Your task to perform on an android device: check android version Image 0: 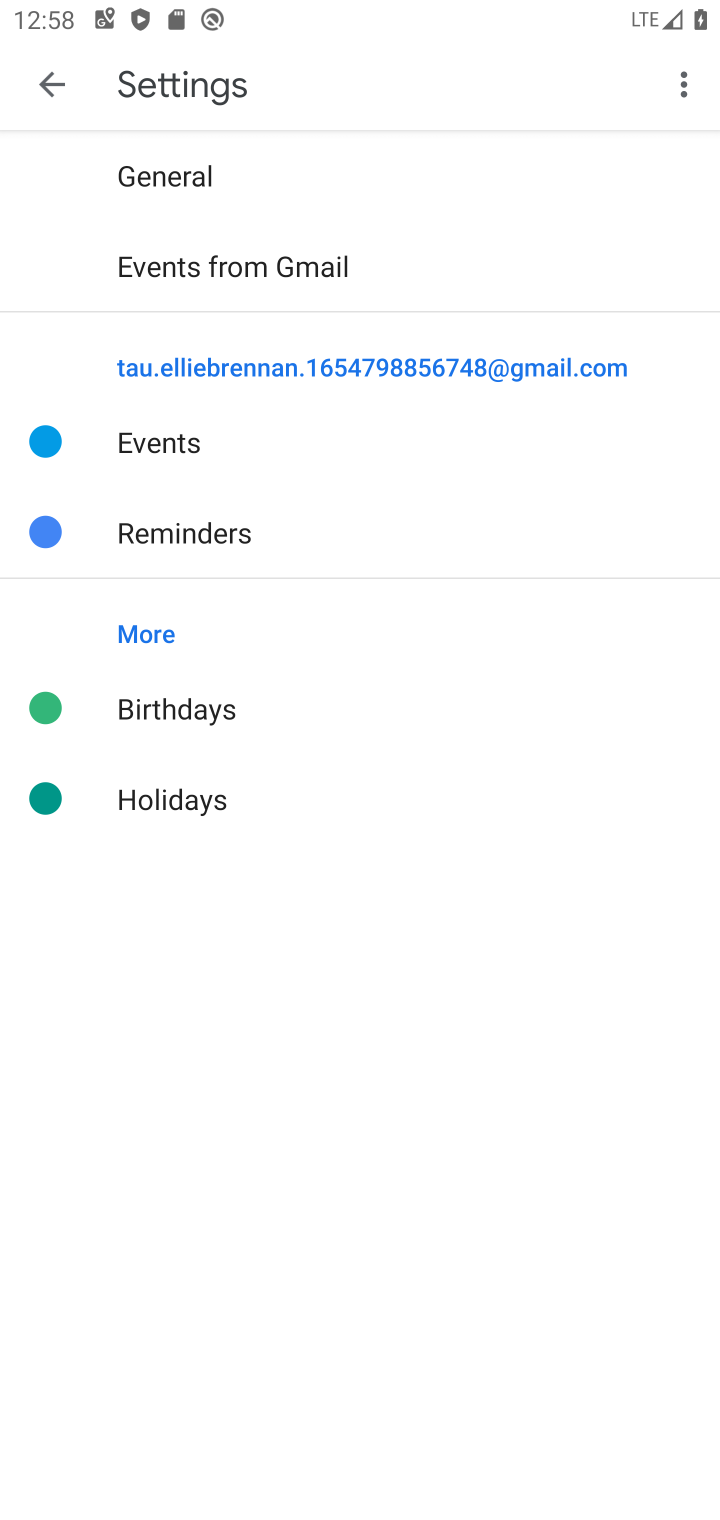
Step 0: press back button
Your task to perform on an android device: check android version Image 1: 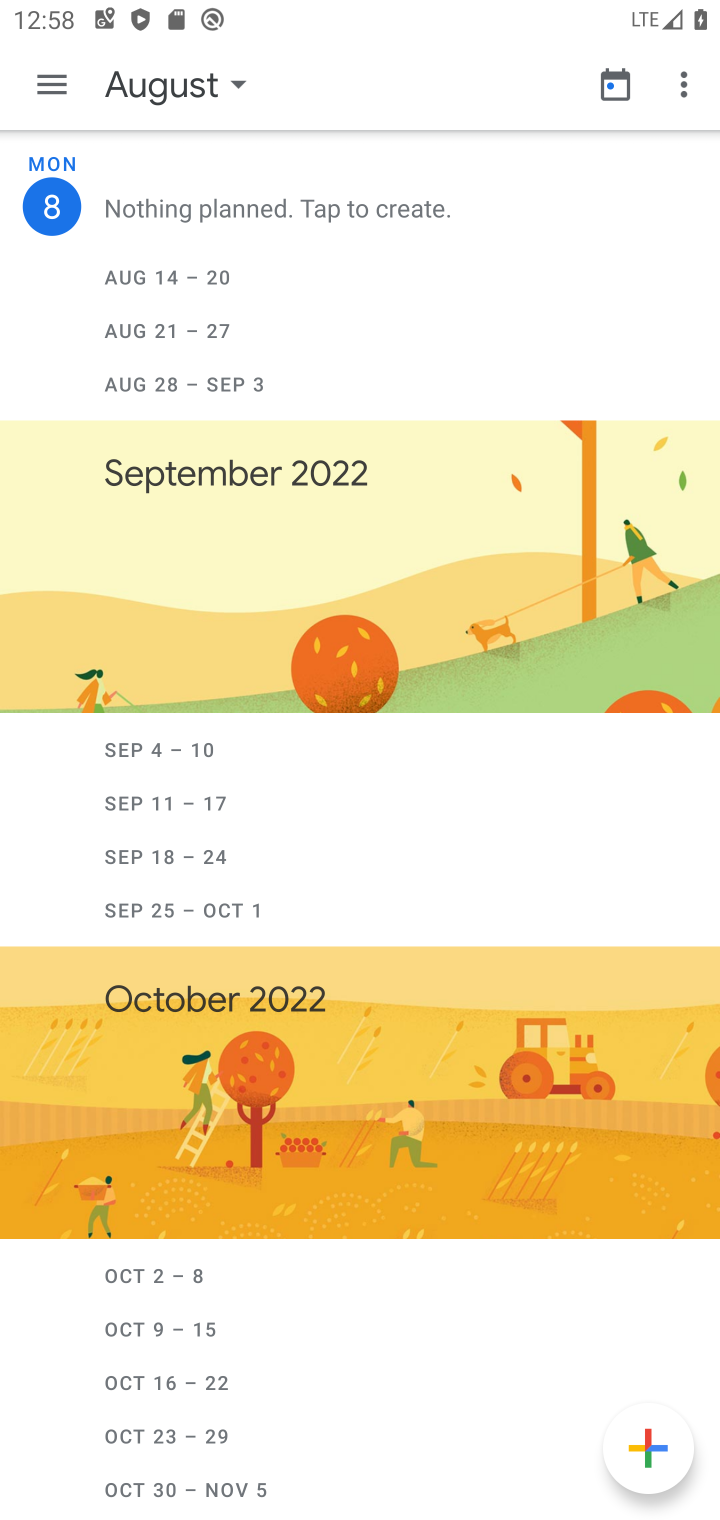
Step 1: press back button
Your task to perform on an android device: check android version Image 2: 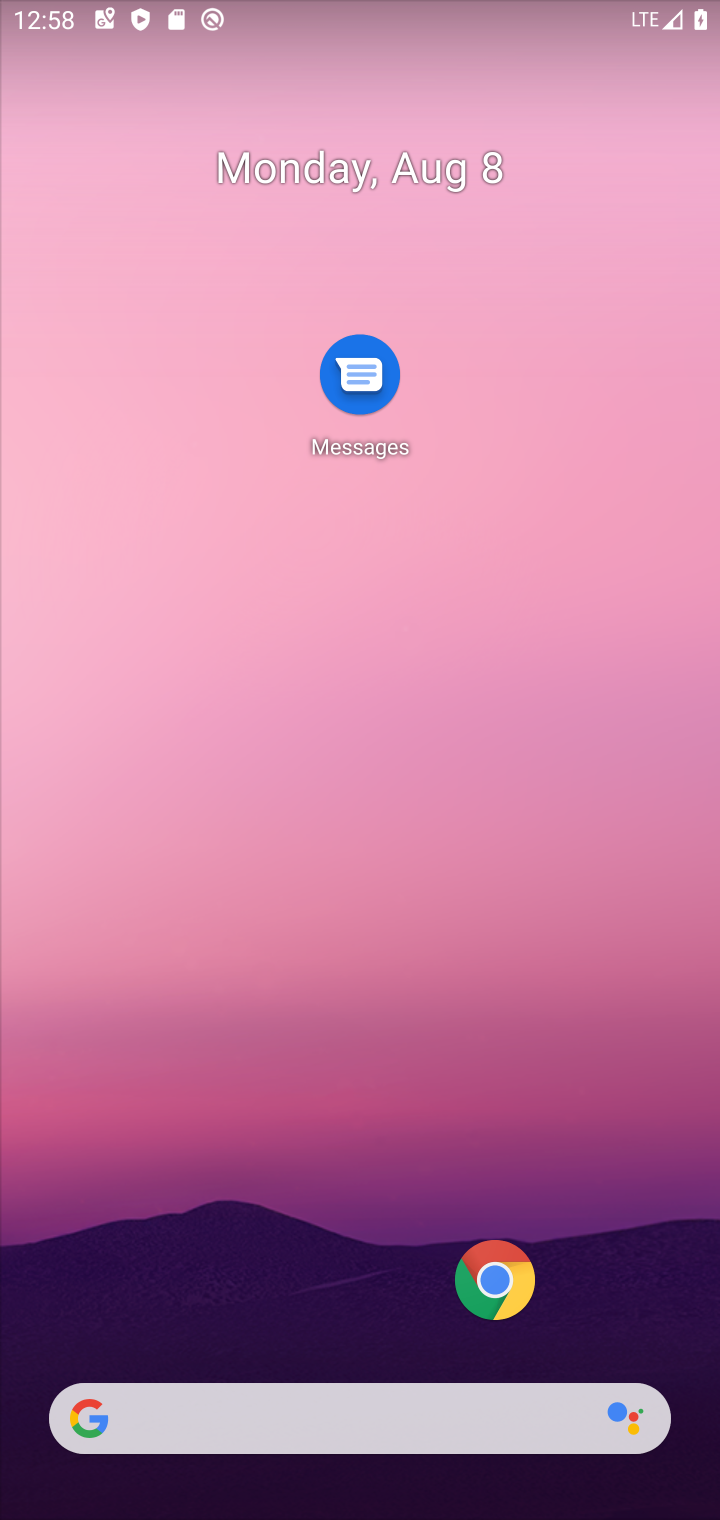
Step 2: drag from (300, 1209) to (459, 119)
Your task to perform on an android device: check android version Image 3: 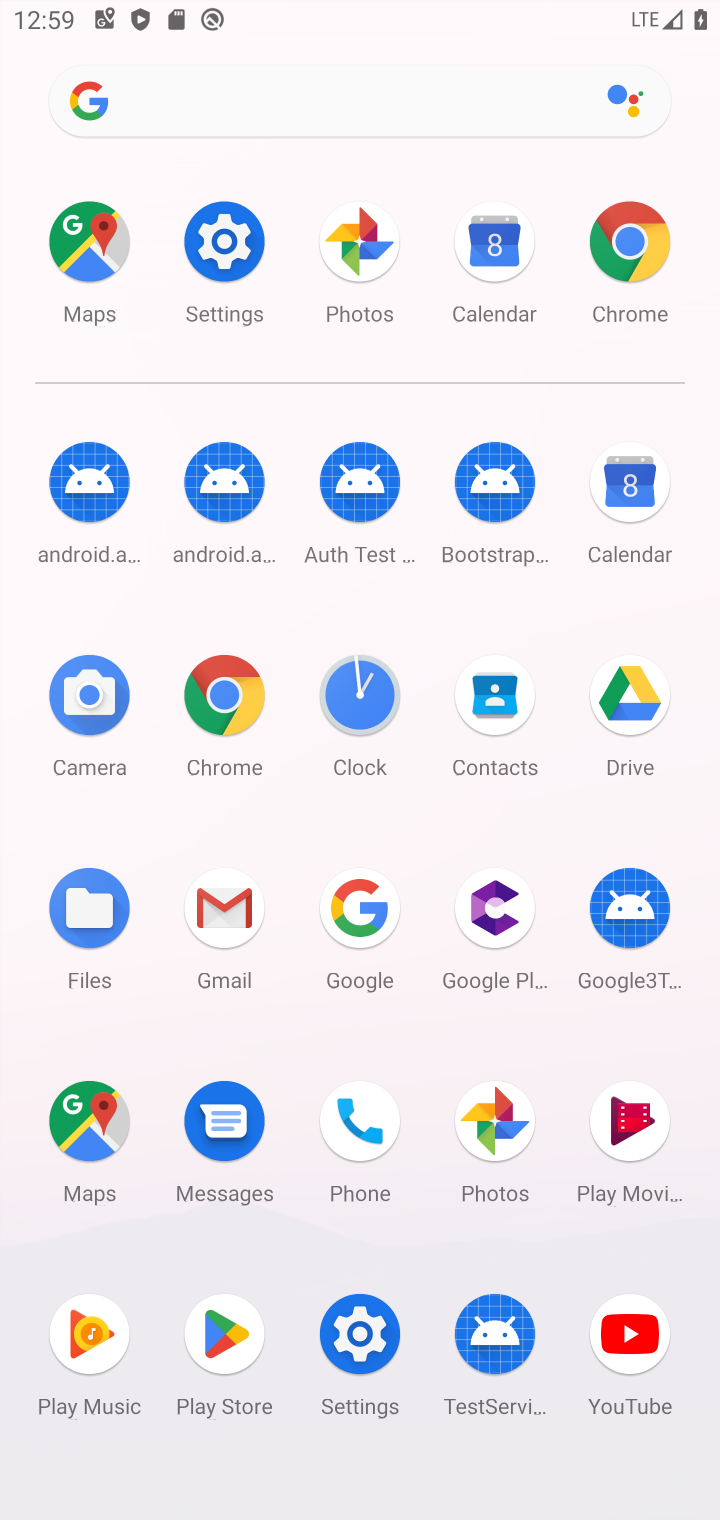
Step 3: click (217, 252)
Your task to perform on an android device: check android version Image 4: 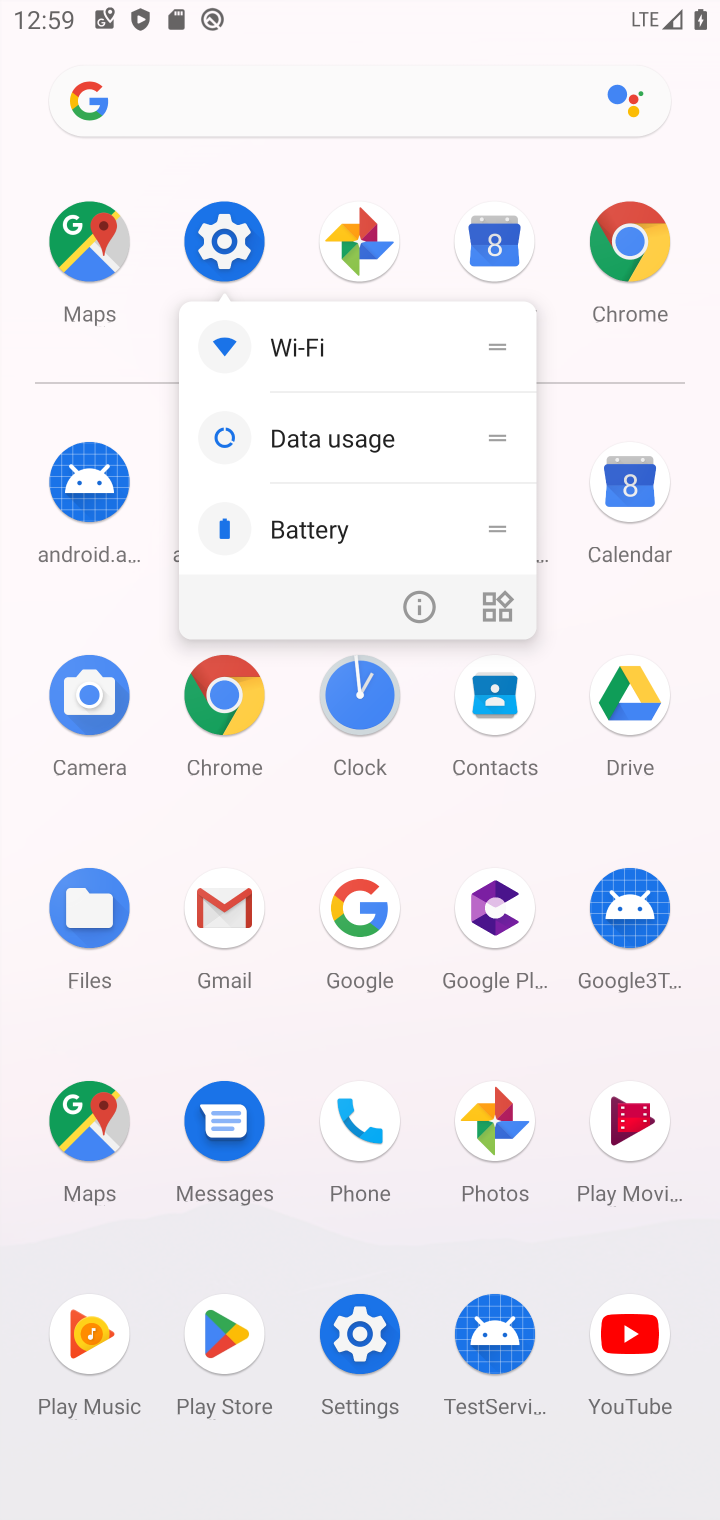
Step 4: click (223, 236)
Your task to perform on an android device: check android version Image 5: 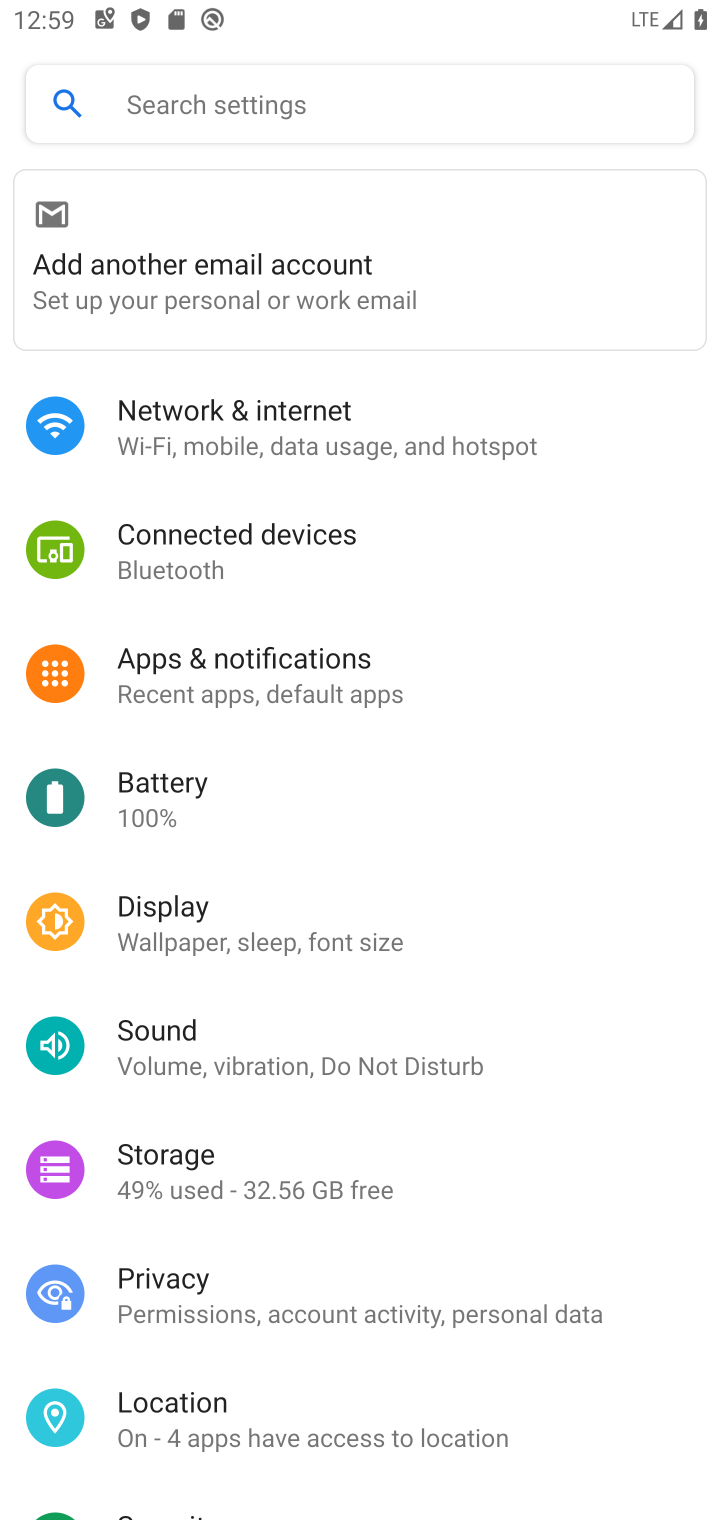
Step 5: drag from (430, 1383) to (595, 172)
Your task to perform on an android device: check android version Image 6: 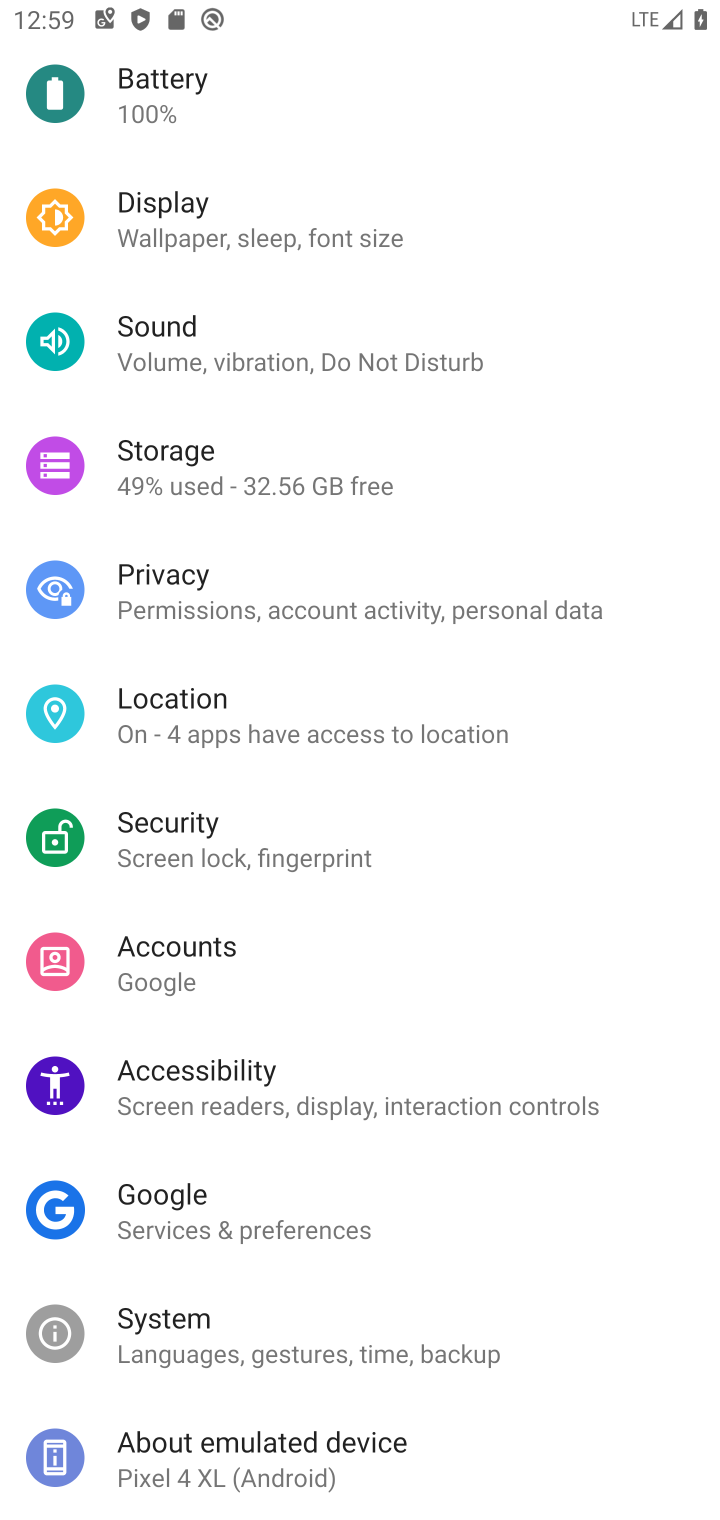
Step 6: drag from (248, 1362) to (516, 29)
Your task to perform on an android device: check android version Image 7: 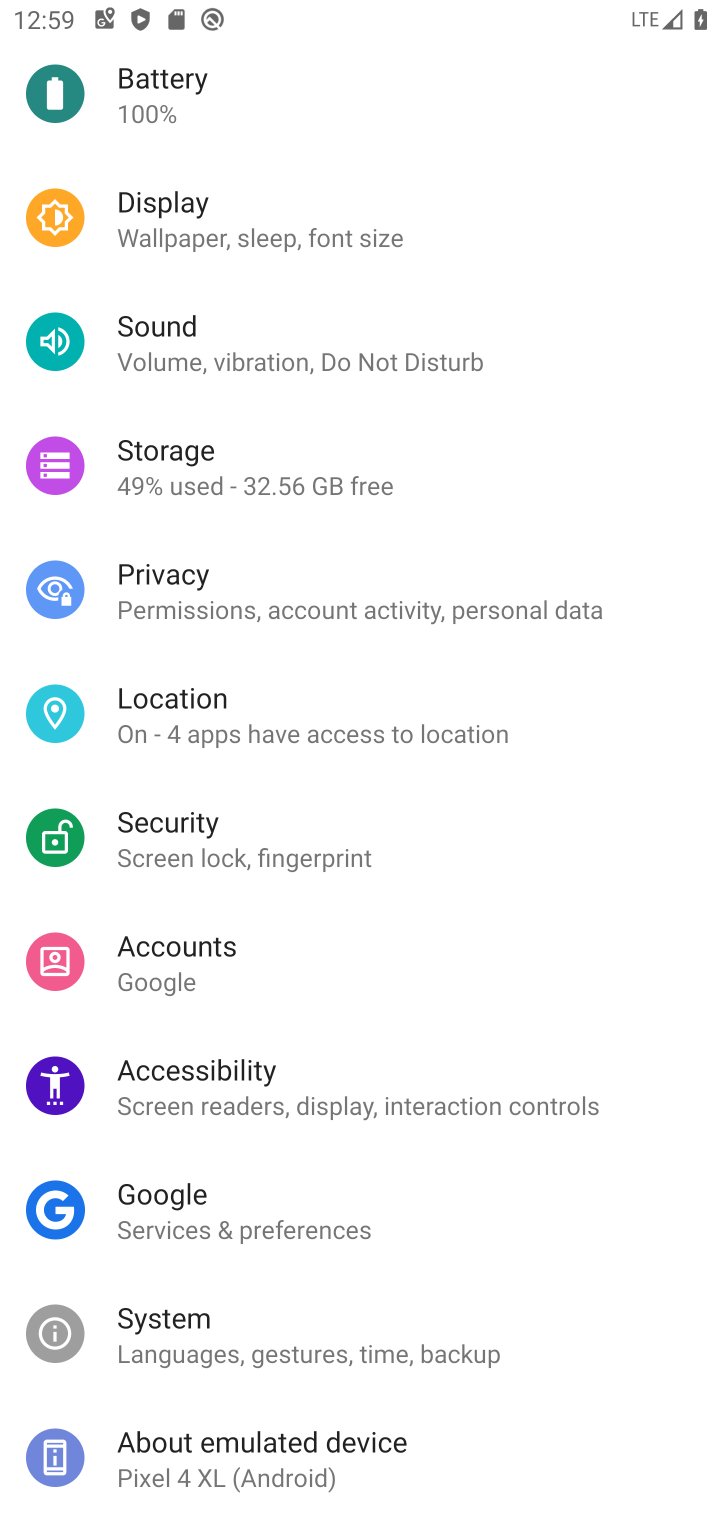
Step 7: click (303, 1469)
Your task to perform on an android device: check android version Image 8: 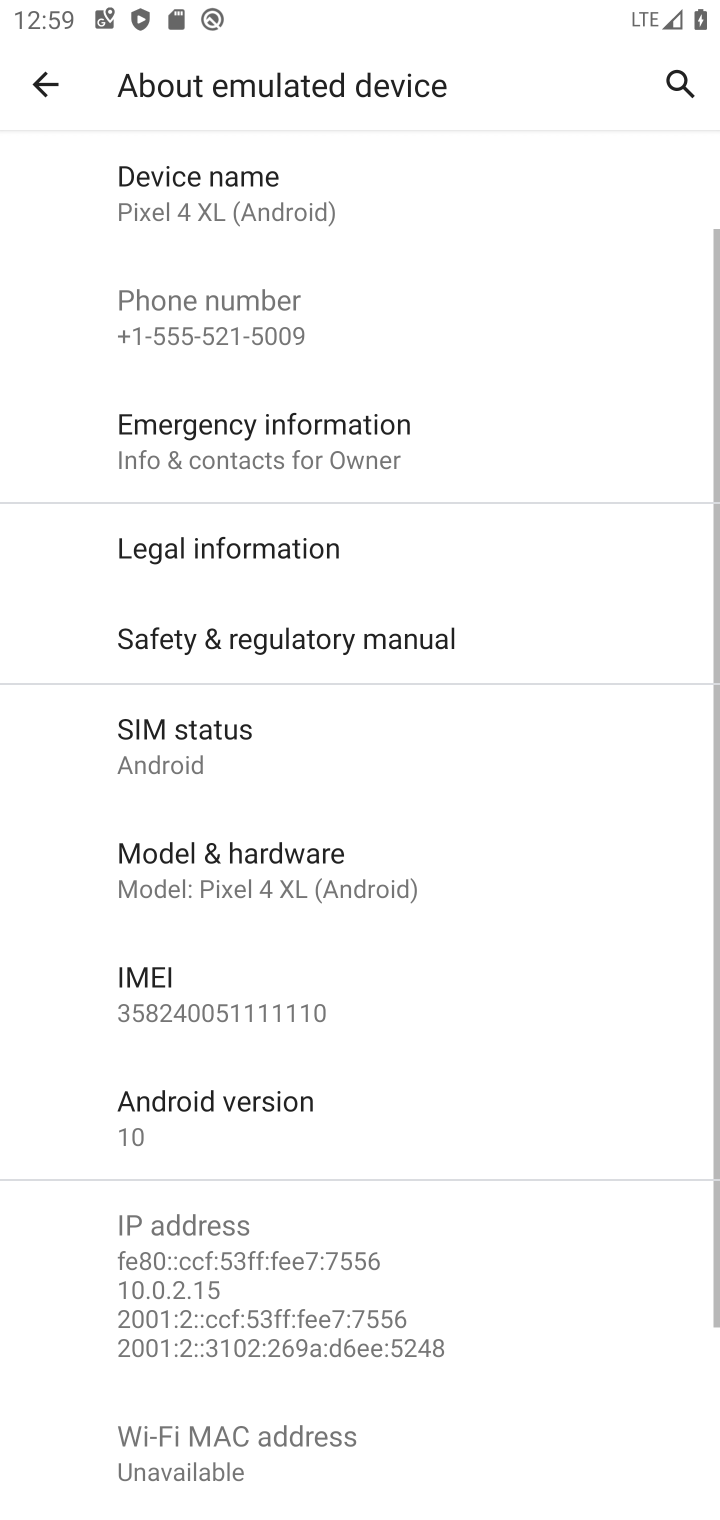
Step 8: click (220, 1102)
Your task to perform on an android device: check android version Image 9: 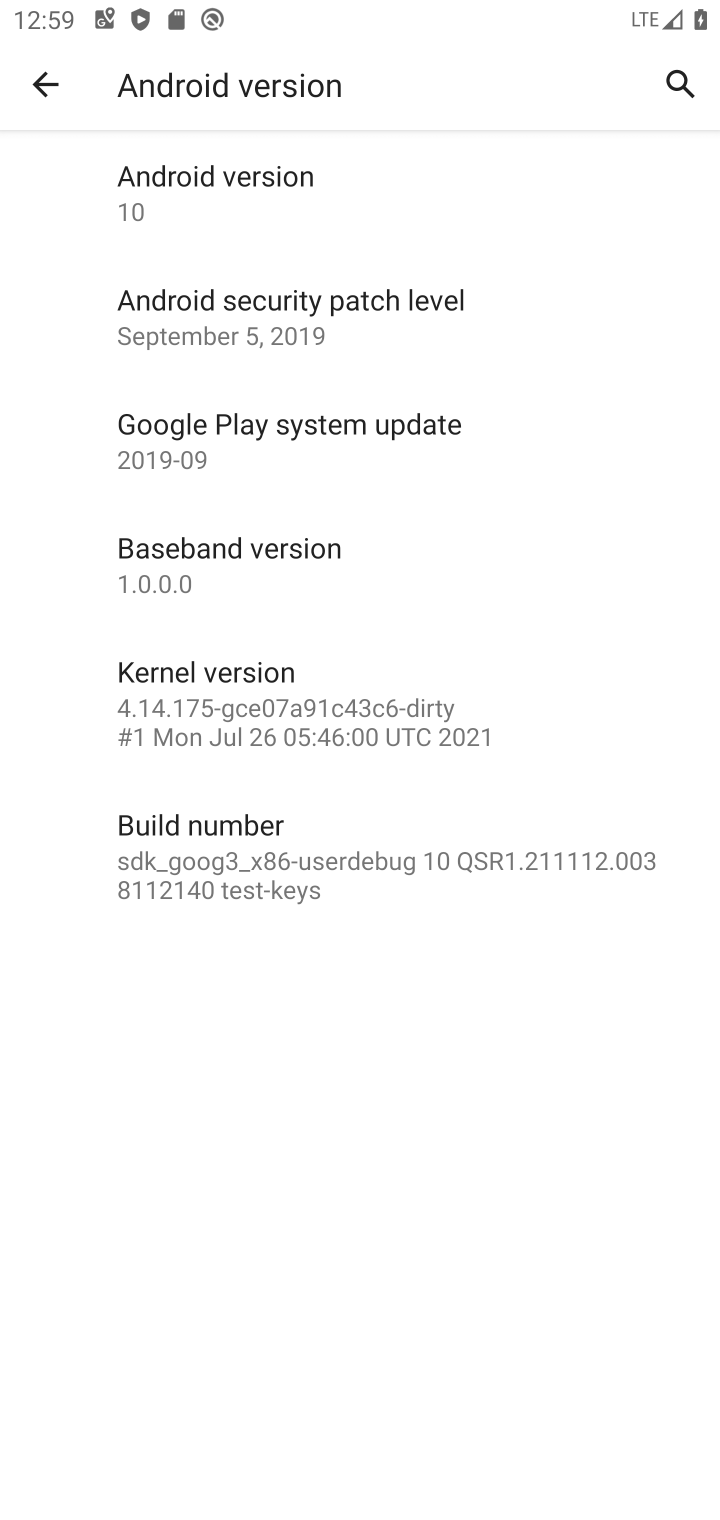
Step 9: task complete